Your task to perform on an android device: What is the recent news? Image 0: 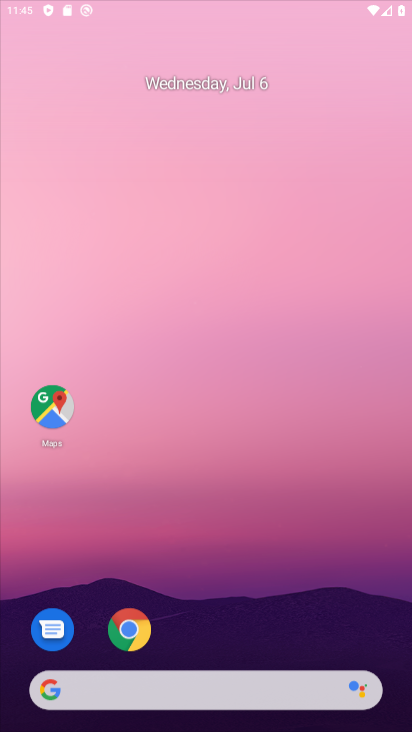
Step 0: click (252, 79)
Your task to perform on an android device: What is the recent news? Image 1: 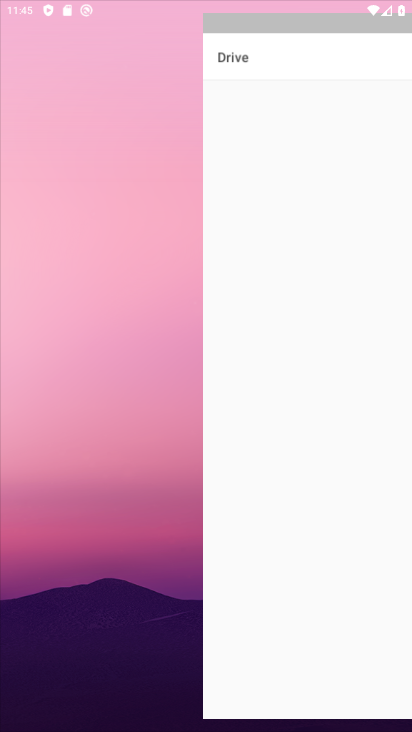
Step 1: press home button
Your task to perform on an android device: What is the recent news? Image 2: 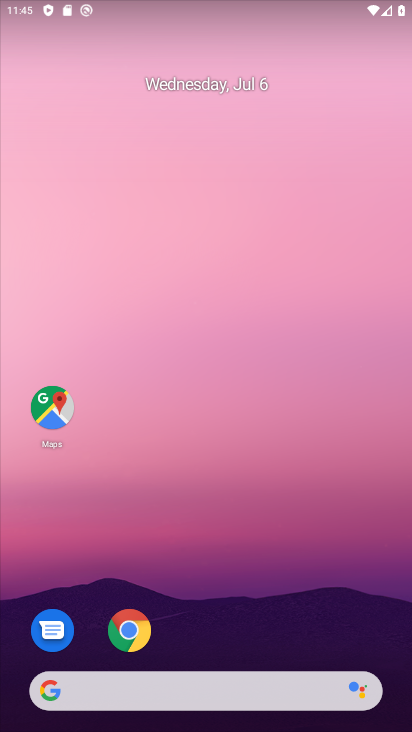
Step 2: drag from (217, 634) to (274, 74)
Your task to perform on an android device: What is the recent news? Image 3: 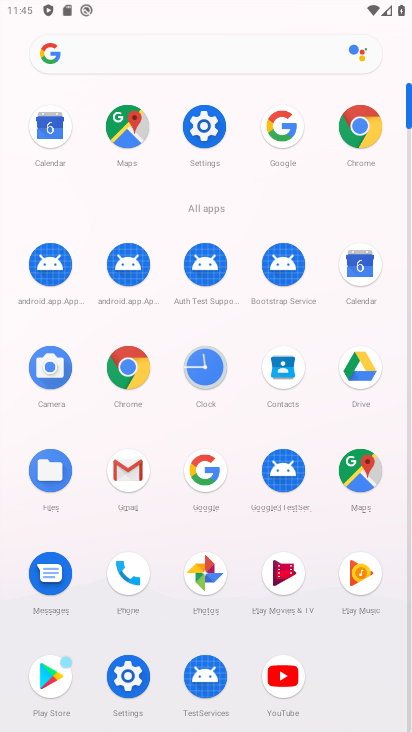
Step 3: click (283, 134)
Your task to perform on an android device: What is the recent news? Image 4: 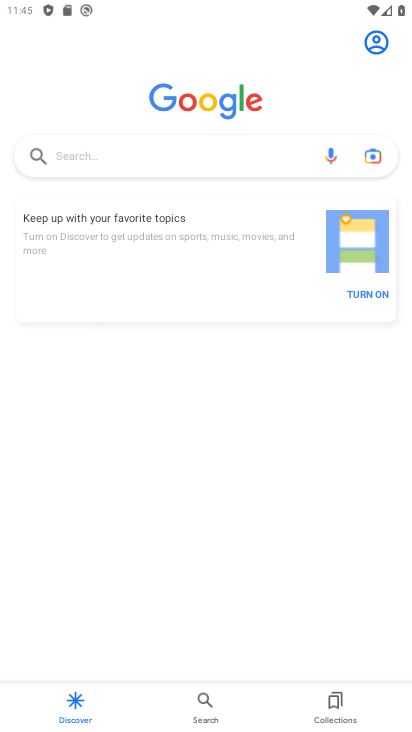
Step 4: click (203, 165)
Your task to perform on an android device: What is the recent news? Image 5: 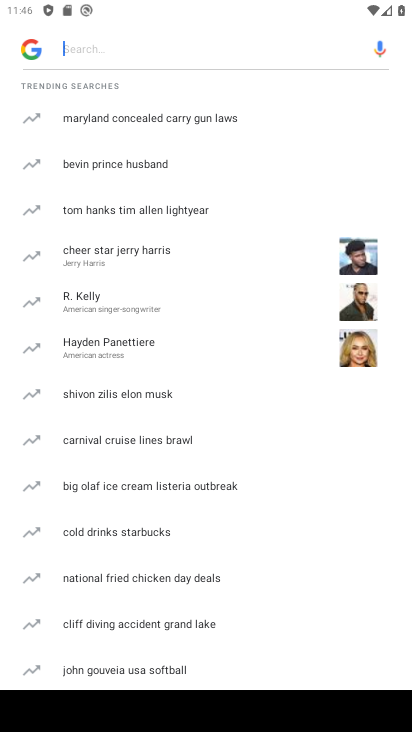
Step 5: type "recent news"
Your task to perform on an android device: What is the recent news? Image 6: 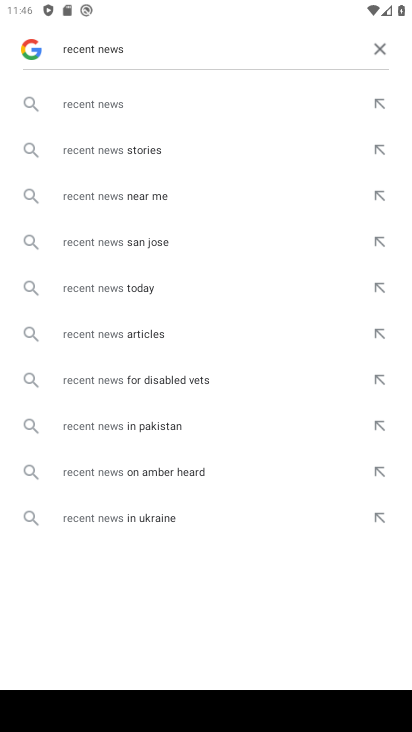
Step 6: click (105, 103)
Your task to perform on an android device: What is the recent news? Image 7: 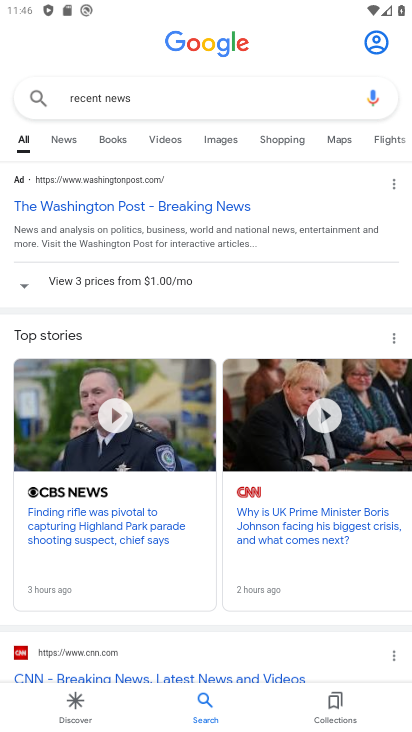
Step 7: task complete